Your task to perform on an android device: clear all cookies in the chrome app Image 0: 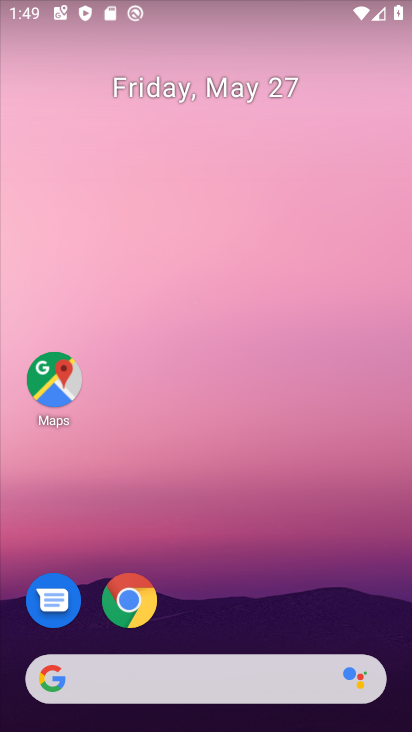
Step 0: click (118, 600)
Your task to perform on an android device: clear all cookies in the chrome app Image 1: 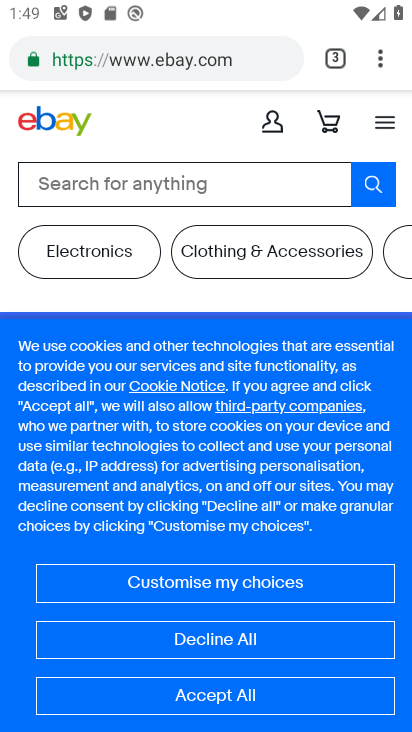
Step 1: click (383, 65)
Your task to perform on an android device: clear all cookies in the chrome app Image 2: 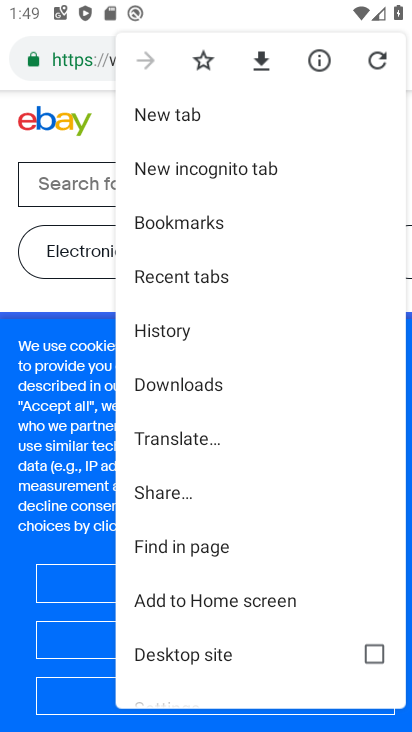
Step 2: drag from (194, 627) to (196, 224)
Your task to perform on an android device: clear all cookies in the chrome app Image 3: 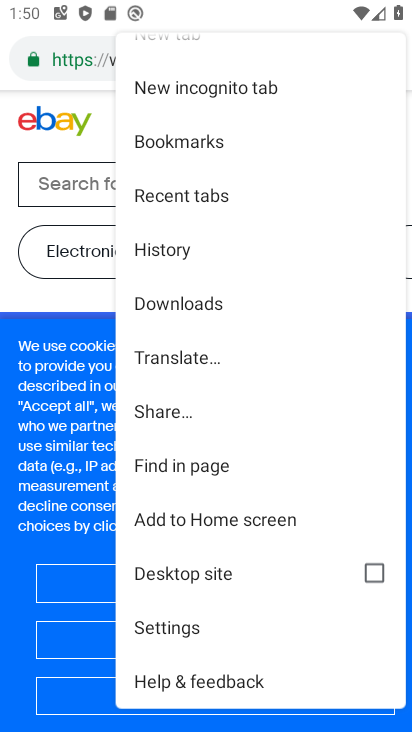
Step 3: click (179, 624)
Your task to perform on an android device: clear all cookies in the chrome app Image 4: 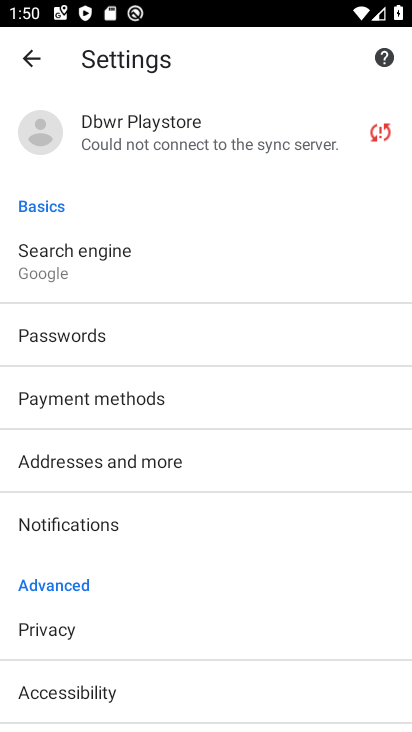
Step 4: click (49, 632)
Your task to perform on an android device: clear all cookies in the chrome app Image 5: 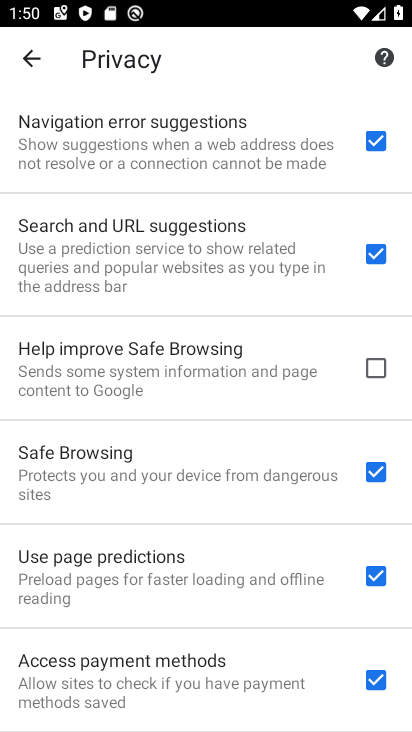
Step 5: drag from (161, 693) to (160, 185)
Your task to perform on an android device: clear all cookies in the chrome app Image 6: 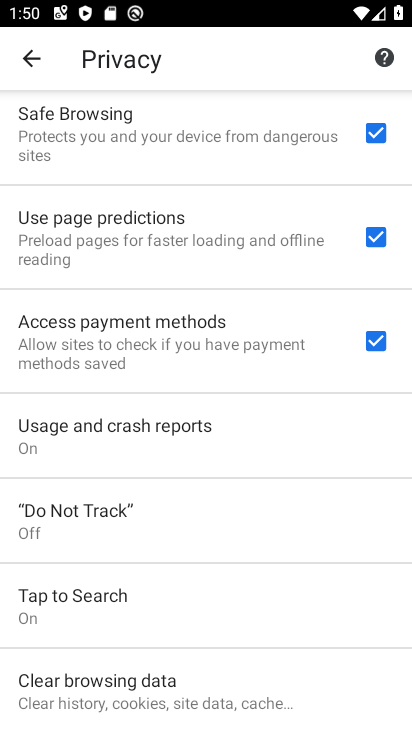
Step 6: click (139, 674)
Your task to perform on an android device: clear all cookies in the chrome app Image 7: 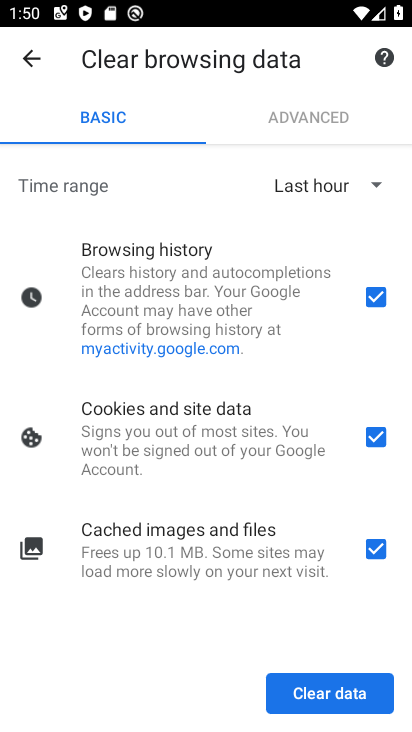
Step 7: click (374, 291)
Your task to perform on an android device: clear all cookies in the chrome app Image 8: 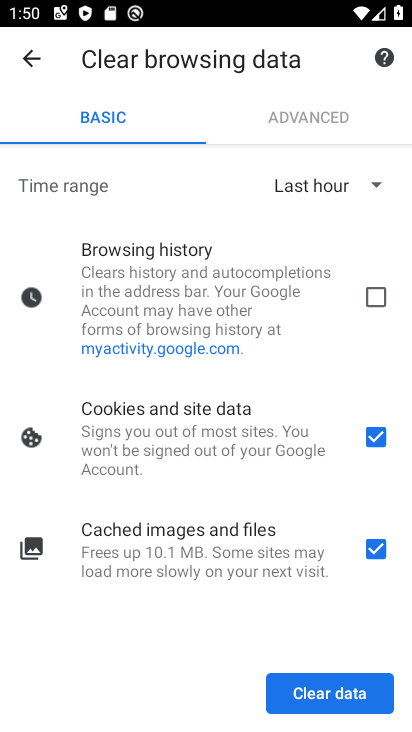
Step 8: click (380, 546)
Your task to perform on an android device: clear all cookies in the chrome app Image 9: 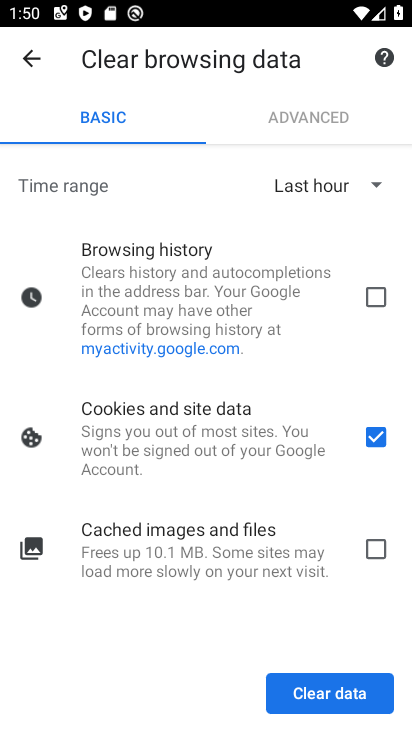
Step 9: click (314, 697)
Your task to perform on an android device: clear all cookies in the chrome app Image 10: 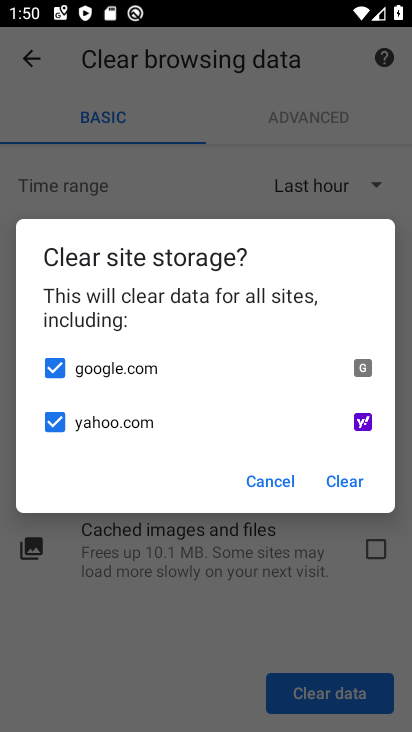
Step 10: click (338, 478)
Your task to perform on an android device: clear all cookies in the chrome app Image 11: 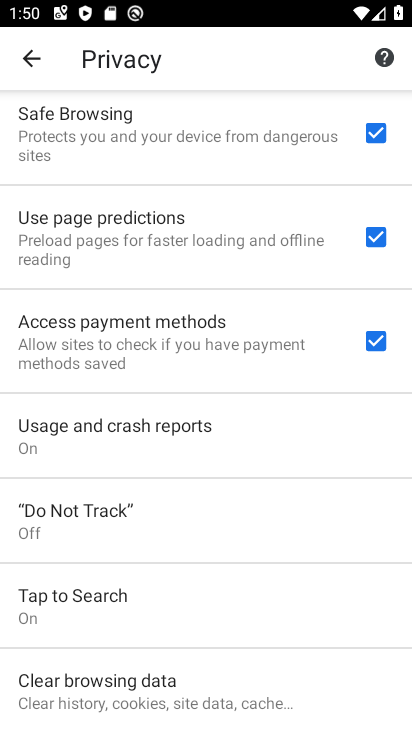
Step 11: task complete